Your task to perform on an android device: set an alarm Image 0: 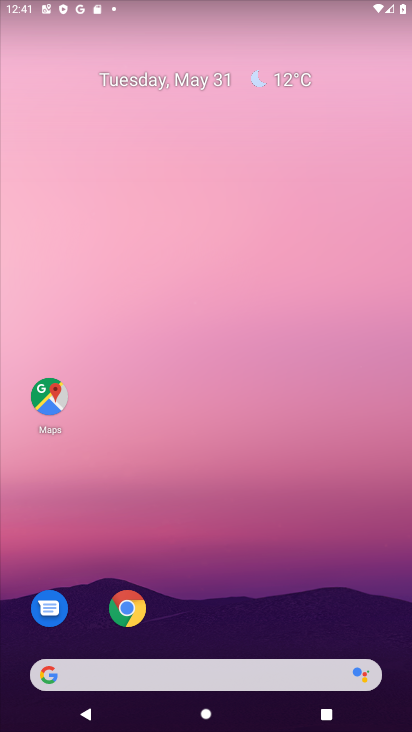
Step 0: drag from (197, 614) to (231, 49)
Your task to perform on an android device: set an alarm Image 1: 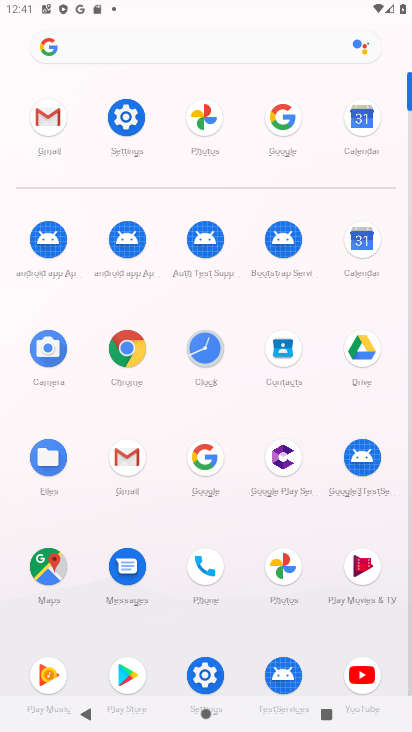
Step 1: click (206, 359)
Your task to perform on an android device: set an alarm Image 2: 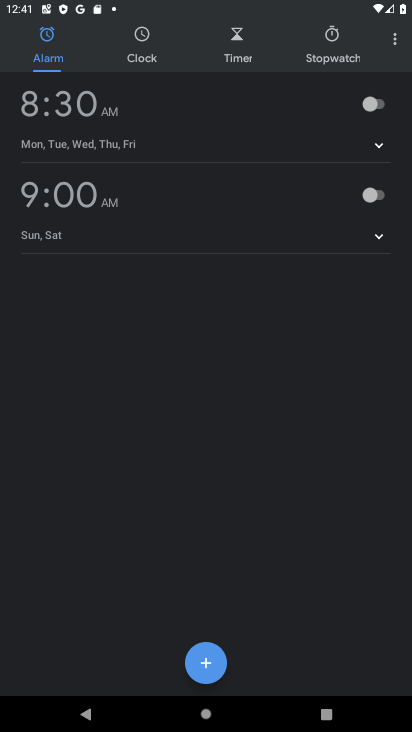
Step 2: click (388, 41)
Your task to perform on an android device: set an alarm Image 3: 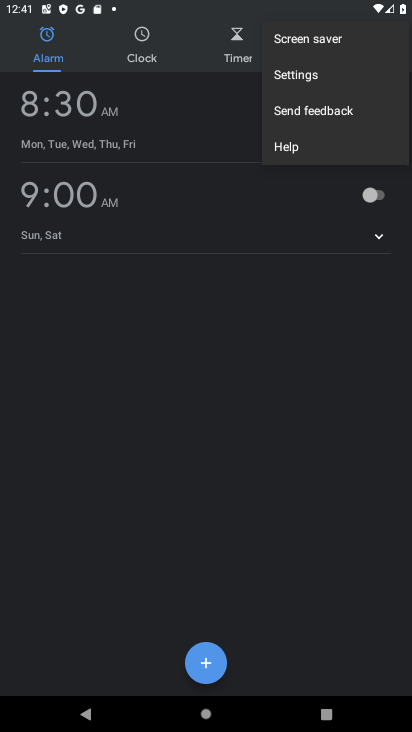
Step 3: click (234, 324)
Your task to perform on an android device: set an alarm Image 4: 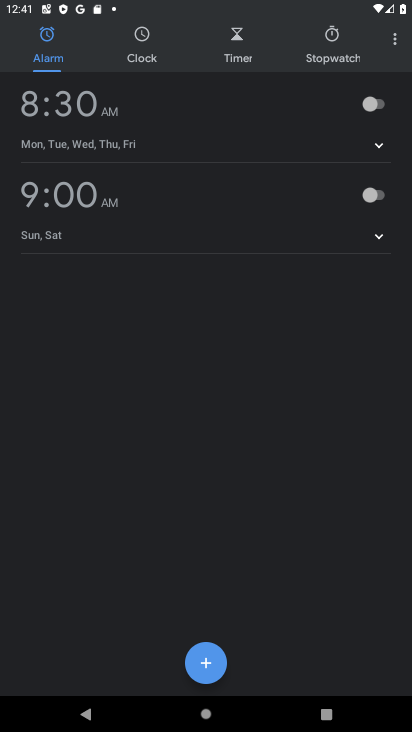
Step 4: click (370, 110)
Your task to perform on an android device: set an alarm Image 5: 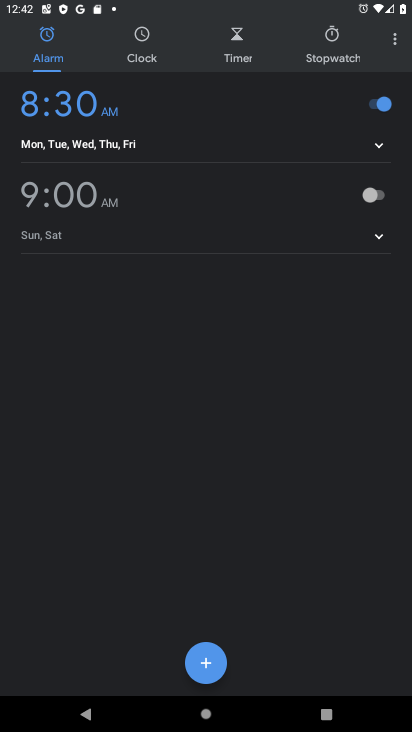
Step 5: task complete